Your task to perform on an android device: snooze an email in the gmail app Image 0: 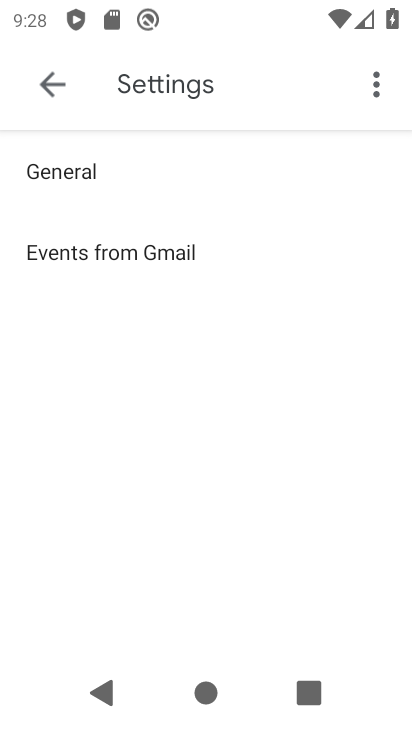
Step 0: press home button
Your task to perform on an android device: snooze an email in the gmail app Image 1: 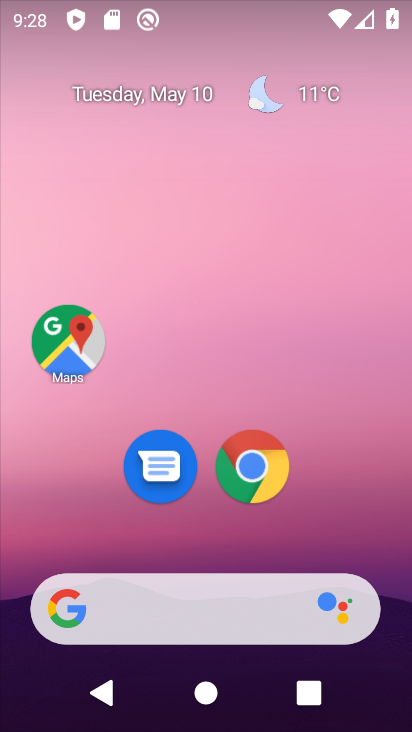
Step 1: drag from (340, 515) to (352, 87)
Your task to perform on an android device: snooze an email in the gmail app Image 2: 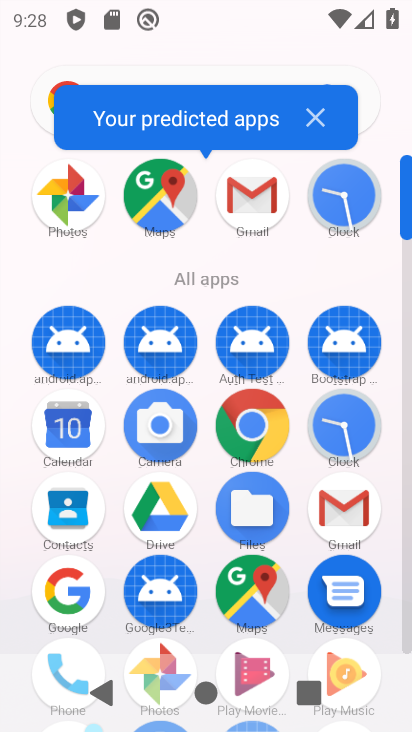
Step 2: click (262, 195)
Your task to perform on an android device: snooze an email in the gmail app Image 3: 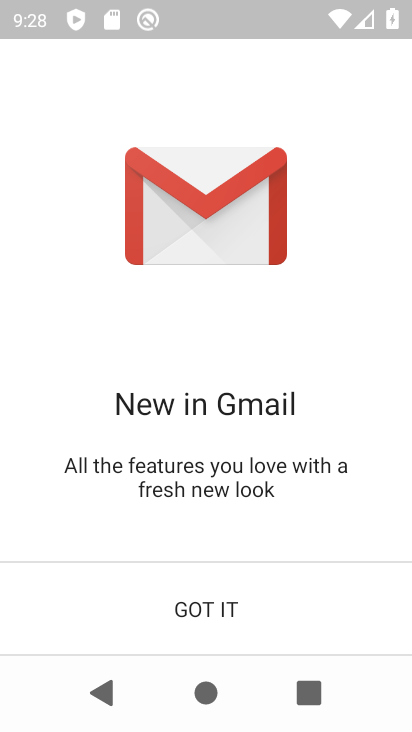
Step 3: click (257, 622)
Your task to perform on an android device: snooze an email in the gmail app Image 4: 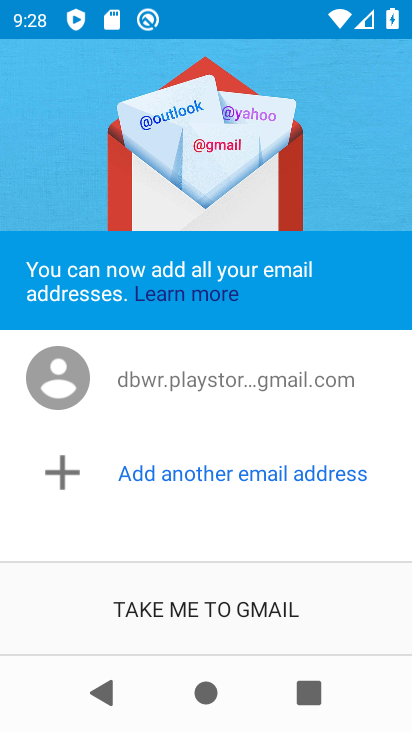
Step 4: click (255, 620)
Your task to perform on an android device: snooze an email in the gmail app Image 5: 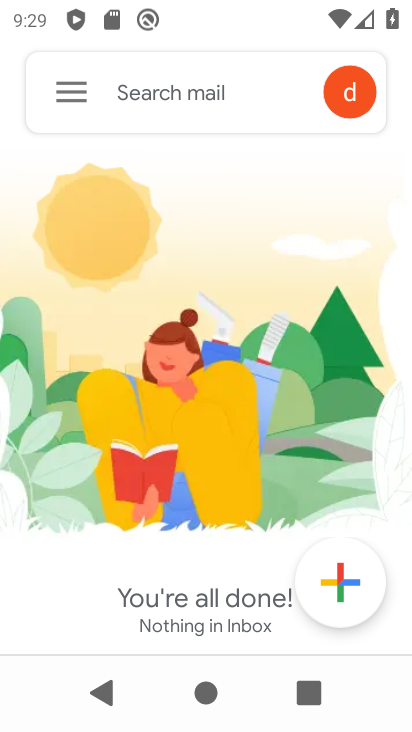
Step 5: click (79, 105)
Your task to perform on an android device: snooze an email in the gmail app Image 6: 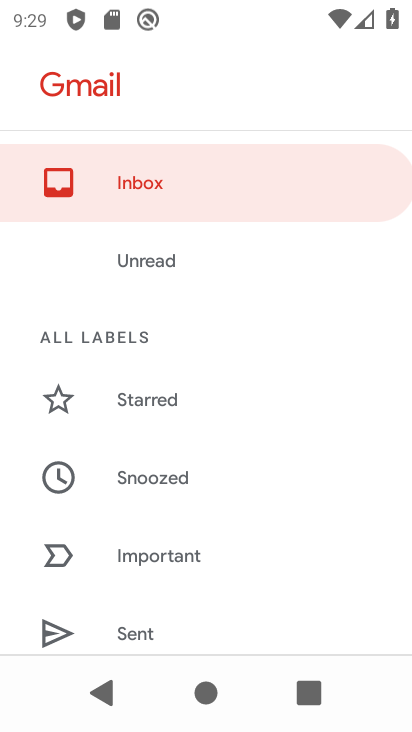
Step 6: drag from (308, 605) to (346, 196)
Your task to perform on an android device: snooze an email in the gmail app Image 7: 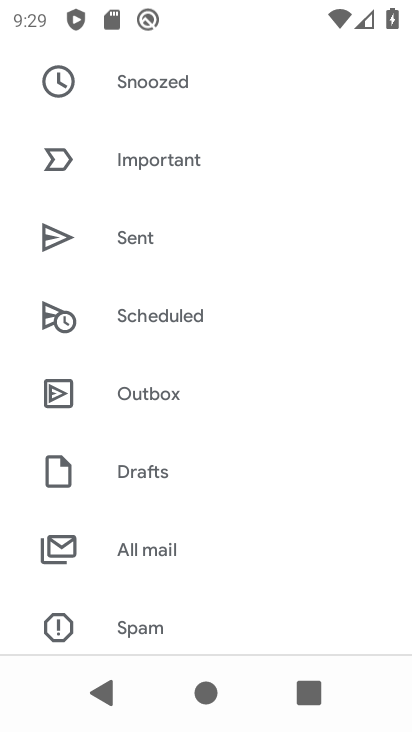
Step 7: click (123, 540)
Your task to perform on an android device: snooze an email in the gmail app Image 8: 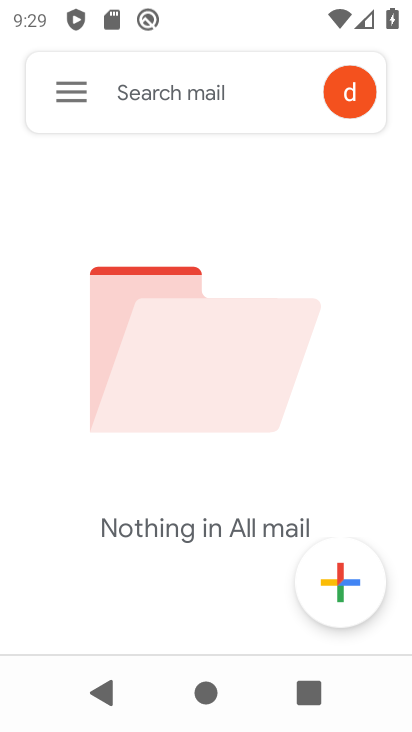
Step 8: task complete